Your task to perform on an android device: Open notification settings Image 0: 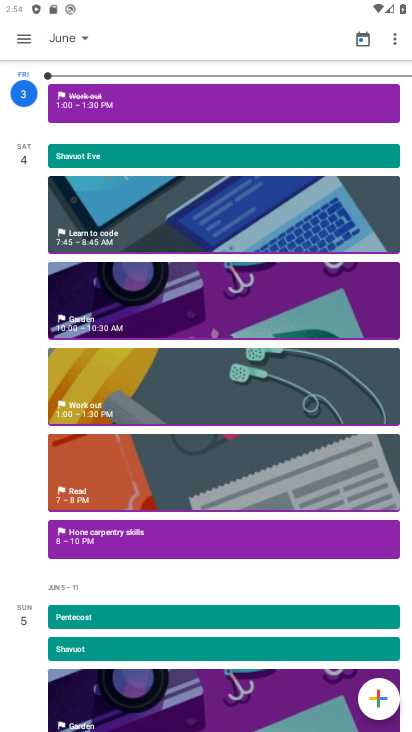
Step 0: press home button
Your task to perform on an android device: Open notification settings Image 1: 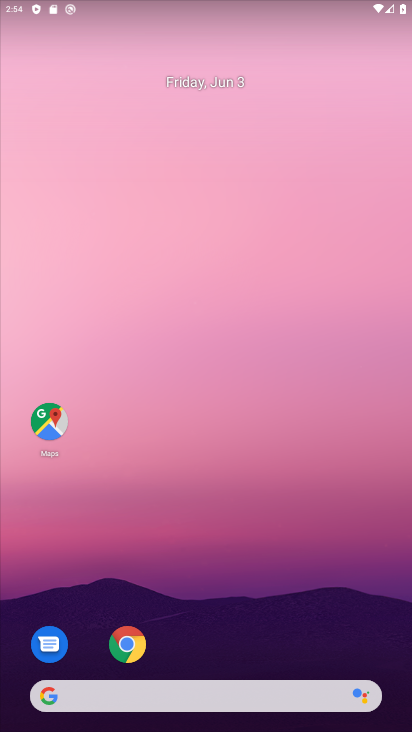
Step 1: drag from (330, 644) to (252, 202)
Your task to perform on an android device: Open notification settings Image 2: 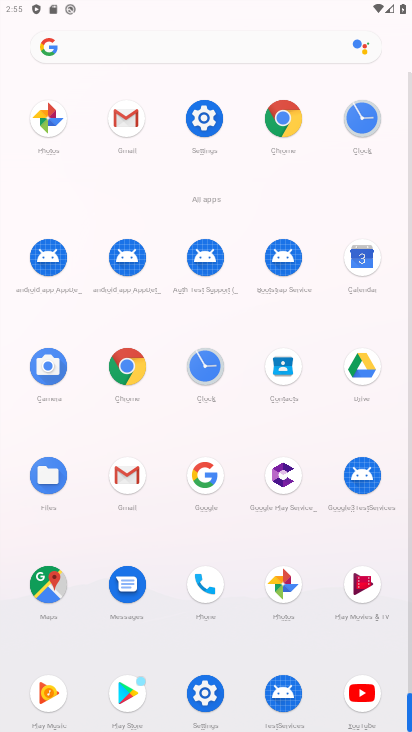
Step 2: click (205, 686)
Your task to perform on an android device: Open notification settings Image 3: 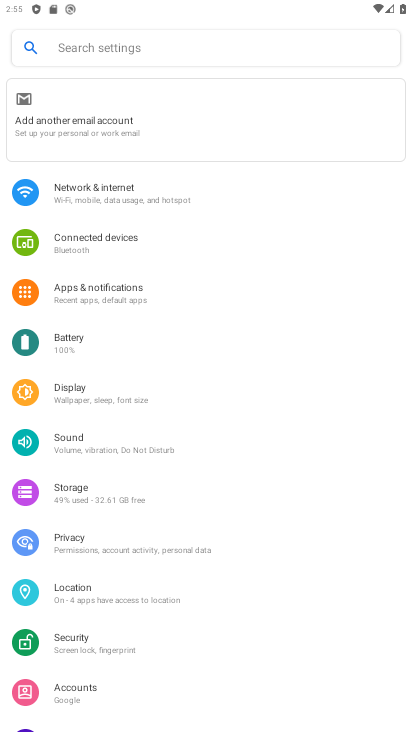
Step 3: click (109, 286)
Your task to perform on an android device: Open notification settings Image 4: 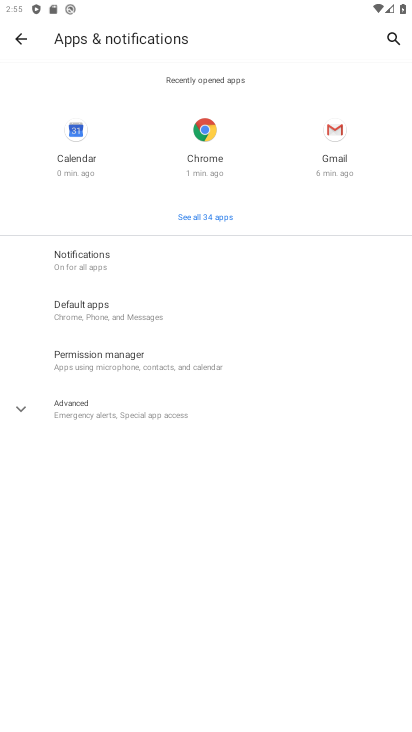
Step 4: click (94, 274)
Your task to perform on an android device: Open notification settings Image 5: 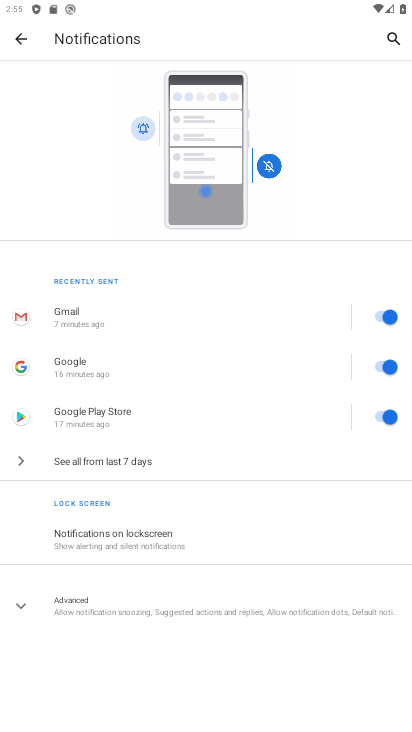
Step 5: click (75, 592)
Your task to perform on an android device: Open notification settings Image 6: 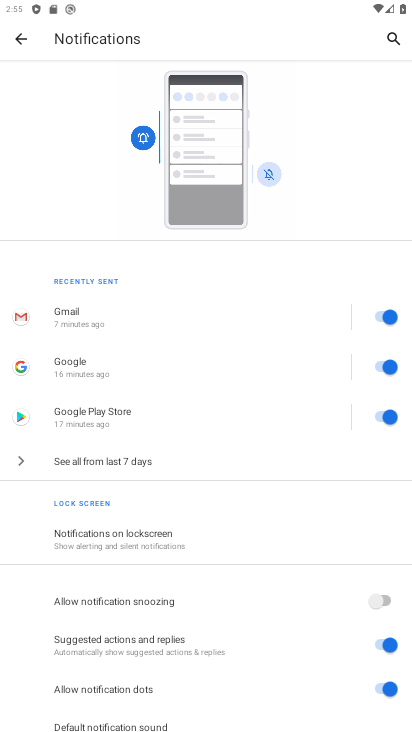
Step 6: task complete